Your task to perform on an android device: Search for Italian restaurants on Maps Image 0: 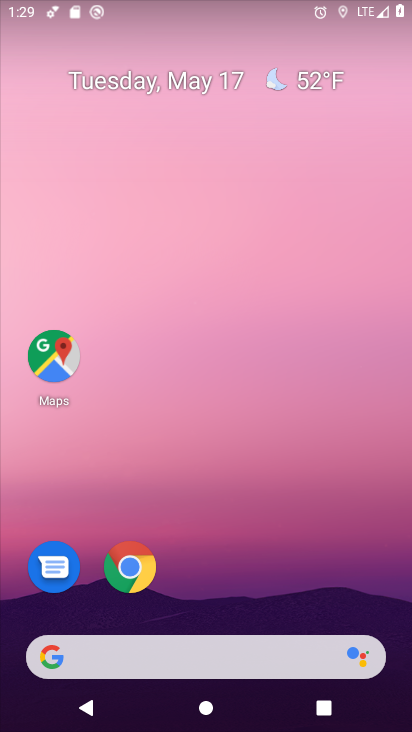
Step 0: click (51, 347)
Your task to perform on an android device: Search for Italian restaurants on Maps Image 1: 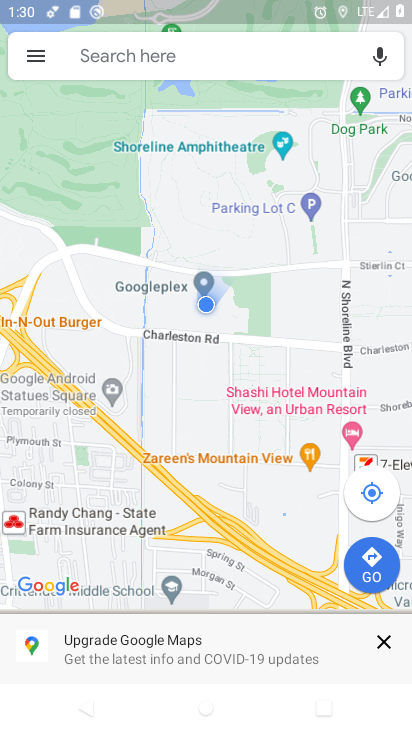
Step 1: click (210, 61)
Your task to perform on an android device: Search for Italian restaurants on Maps Image 2: 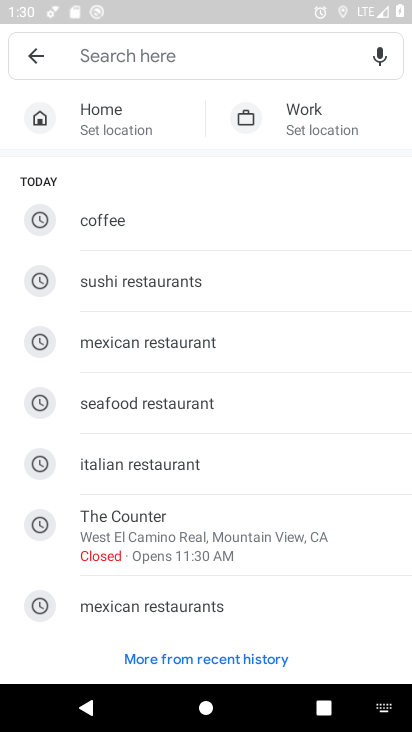
Step 2: click (137, 464)
Your task to perform on an android device: Search for Italian restaurants on Maps Image 3: 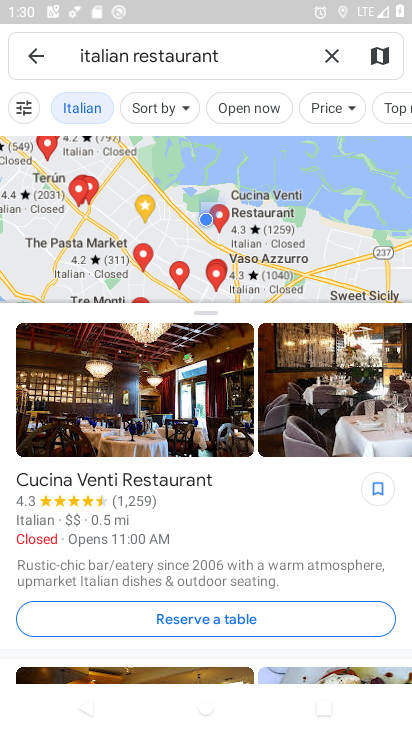
Step 3: task complete